Your task to perform on an android device: Open my contact list Image 0: 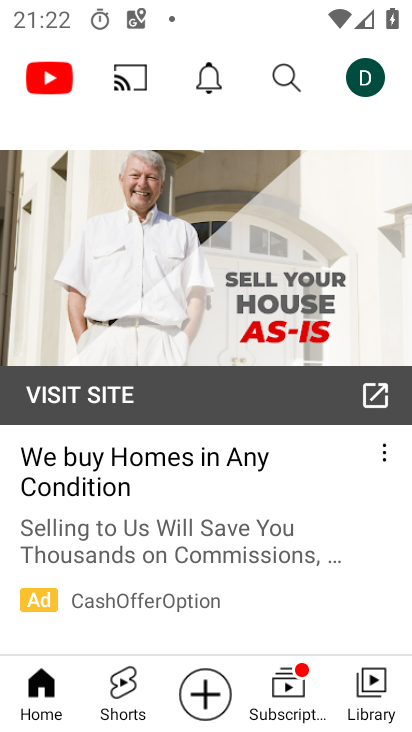
Step 0: press home button
Your task to perform on an android device: Open my contact list Image 1: 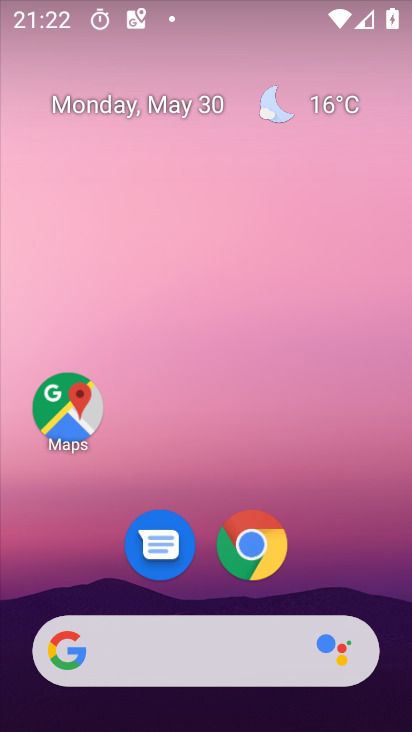
Step 1: drag from (339, 546) to (331, 266)
Your task to perform on an android device: Open my contact list Image 2: 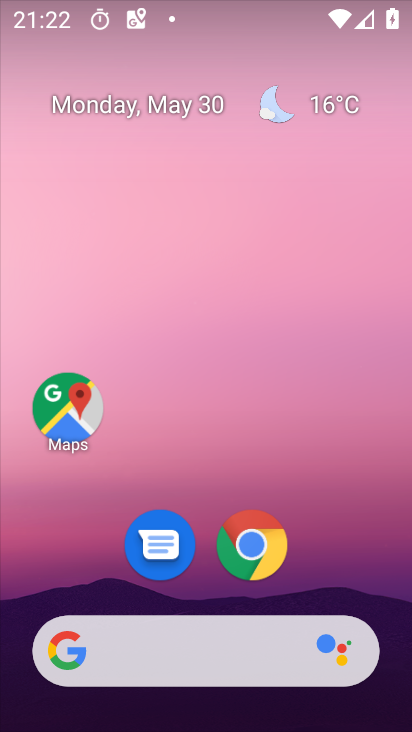
Step 2: drag from (328, 588) to (271, 163)
Your task to perform on an android device: Open my contact list Image 3: 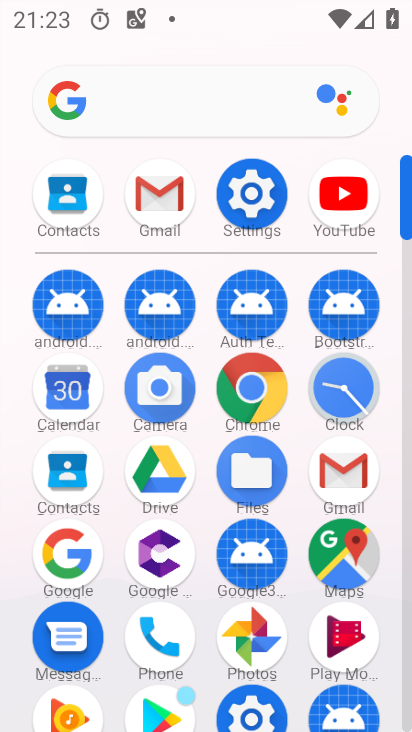
Step 3: click (73, 461)
Your task to perform on an android device: Open my contact list Image 4: 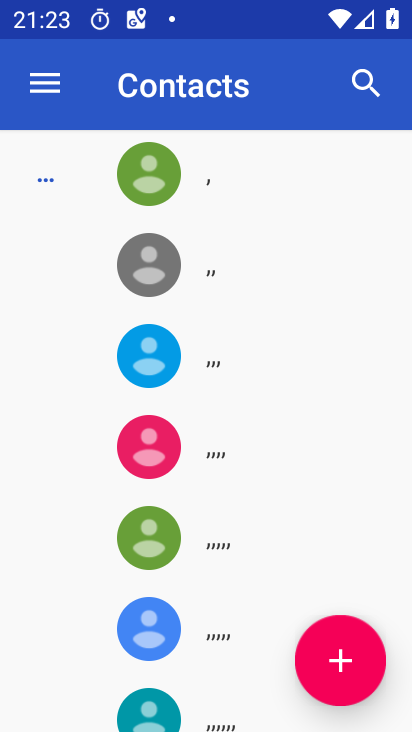
Step 4: task complete